Your task to perform on an android device: empty trash in google photos Image 0: 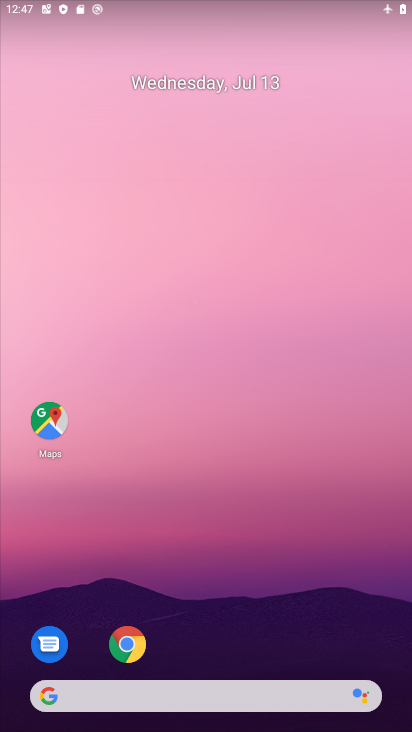
Step 0: drag from (265, 577) to (245, 81)
Your task to perform on an android device: empty trash in google photos Image 1: 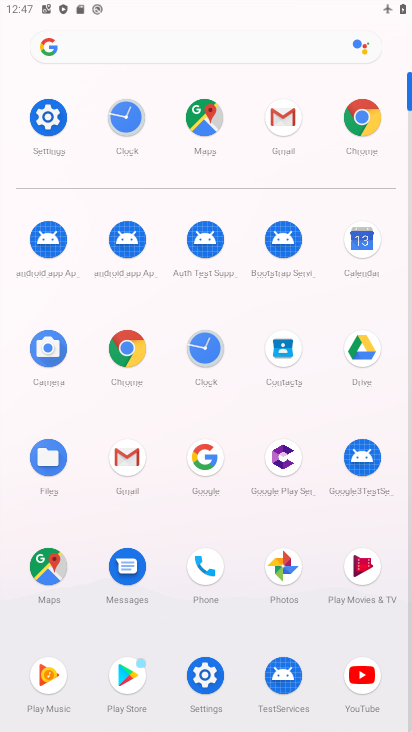
Step 1: click (287, 562)
Your task to perform on an android device: empty trash in google photos Image 2: 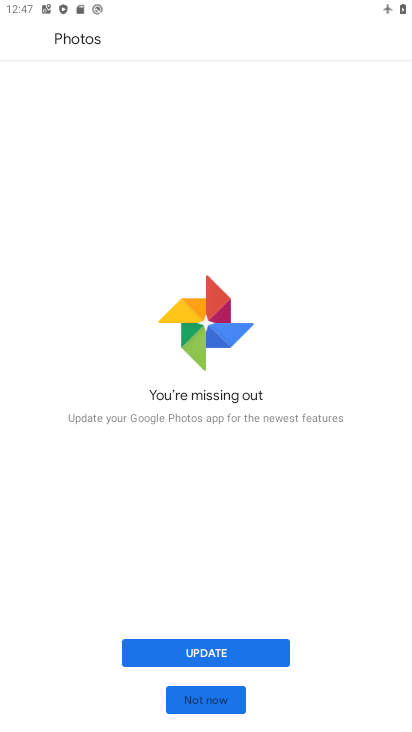
Step 2: click (202, 705)
Your task to perform on an android device: empty trash in google photos Image 3: 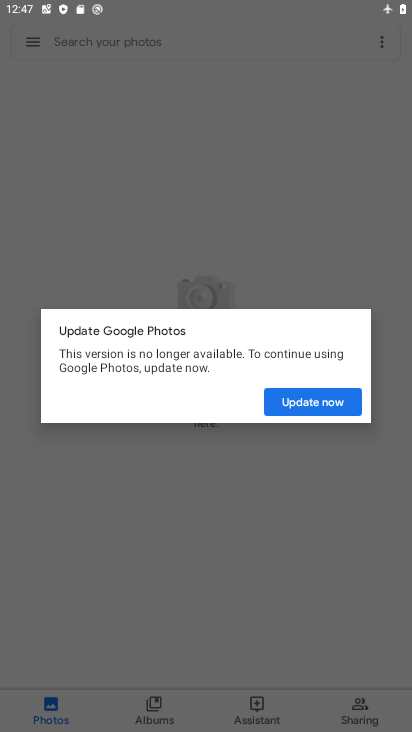
Step 3: task complete